Your task to perform on an android device: turn on showing notifications on the lock screen Image 0: 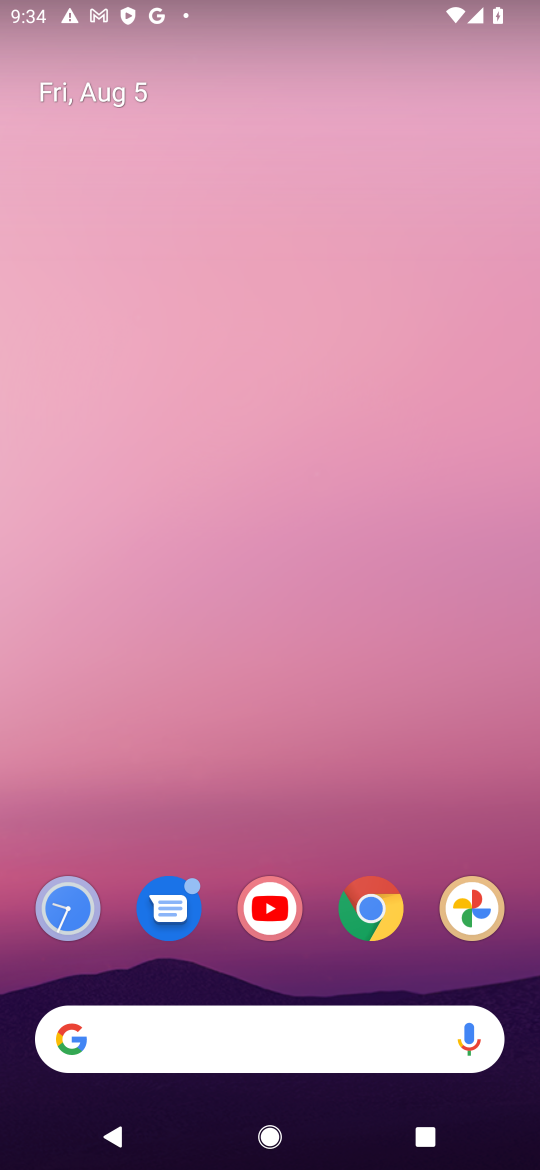
Step 0: press home button
Your task to perform on an android device: turn on showing notifications on the lock screen Image 1: 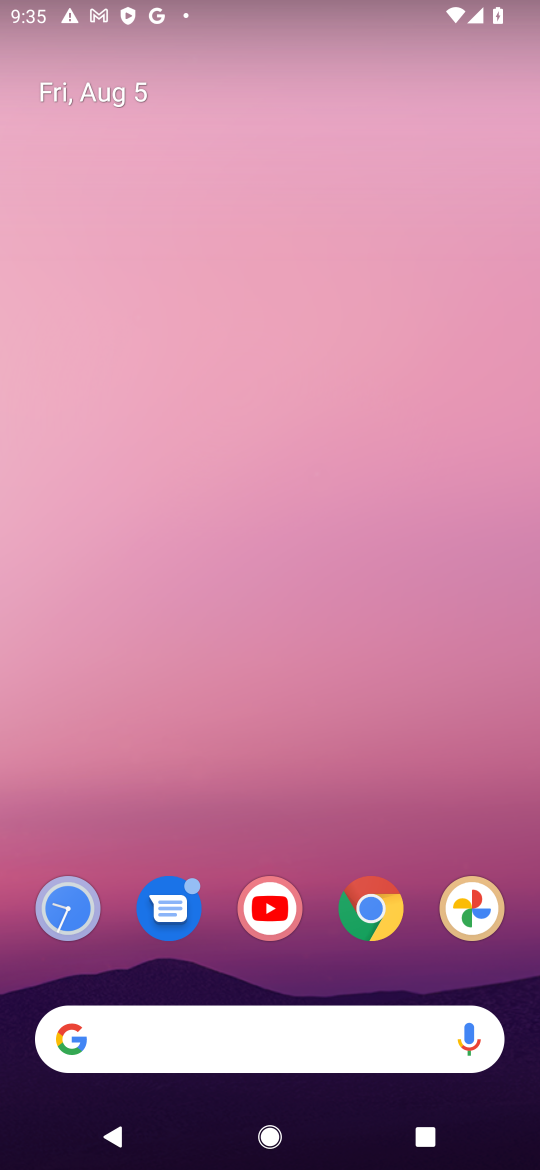
Step 1: drag from (259, 785) to (289, 14)
Your task to perform on an android device: turn on showing notifications on the lock screen Image 2: 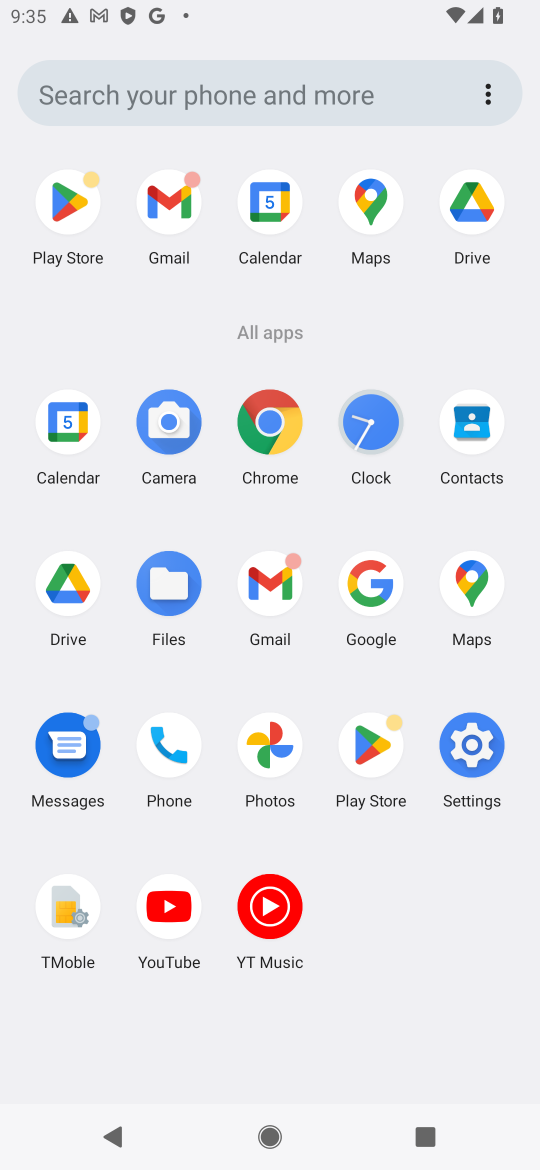
Step 2: click (470, 744)
Your task to perform on an android device: turn on showing notifications on the lock screen Image 3: 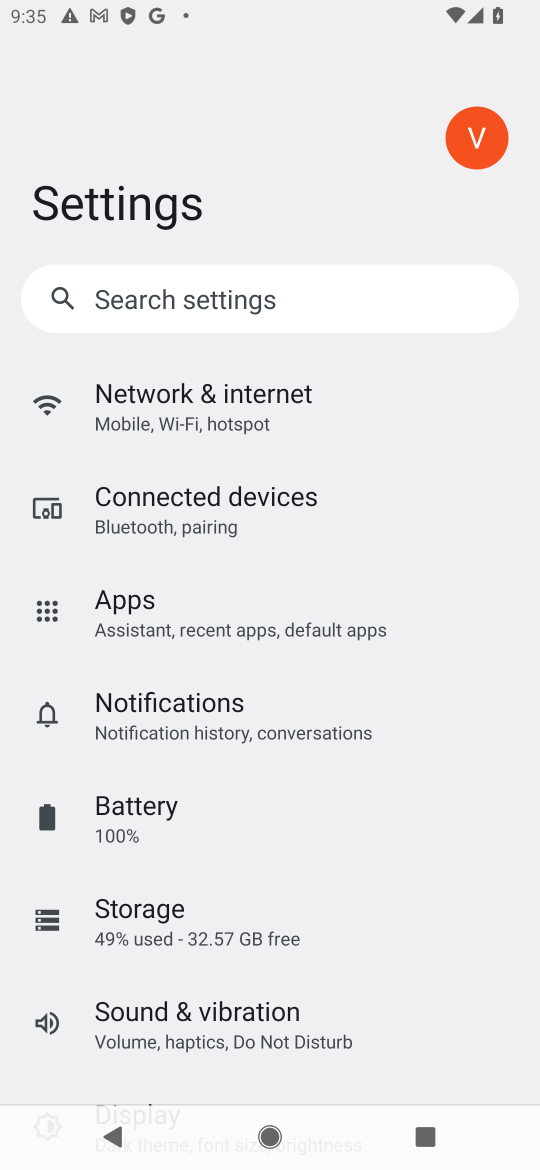
Step 3: click (183, 710)
Your task to perform on an android device: turn on showing notifications on the lock screen Image 4: 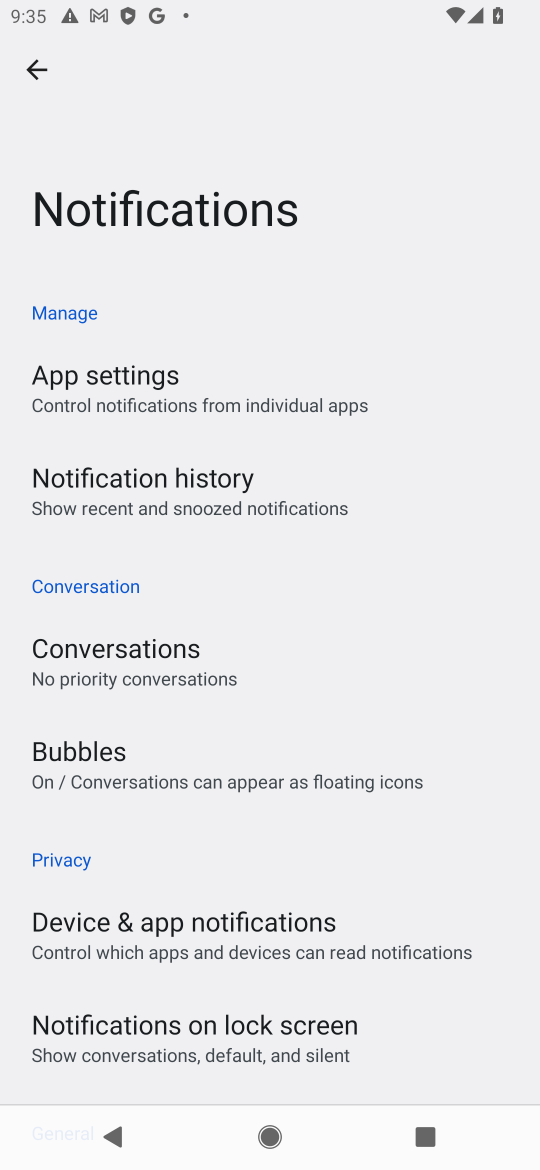
Step 4: click (221, 1025)
Your task to perform on an android device: turn on showing notifications on the lock screen Image 5: 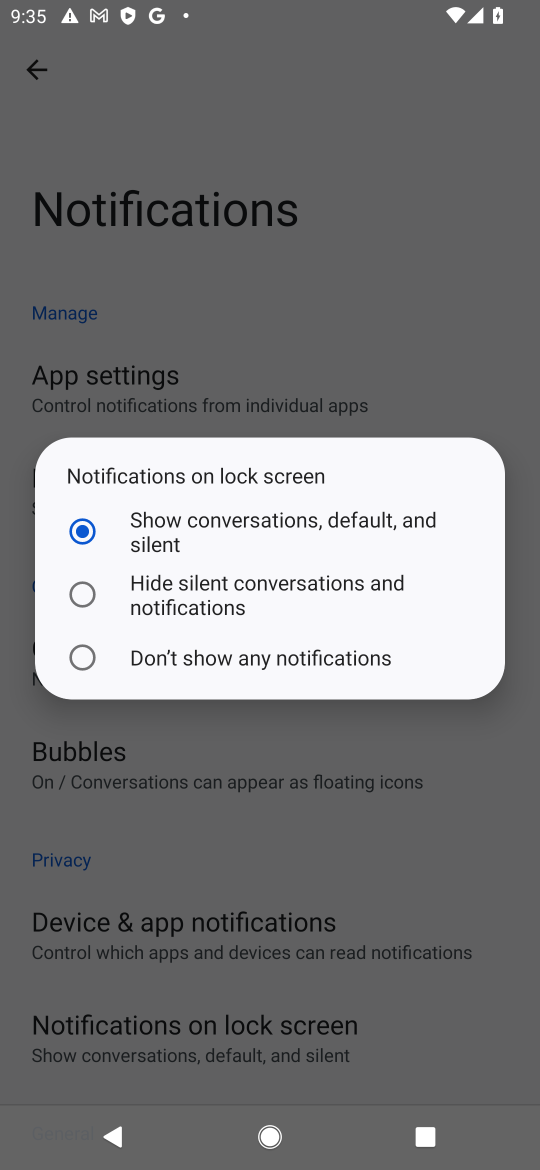
Step 5: task complete